Your task to perform on an android device: stop showing notifications on the lock screen Image 0: 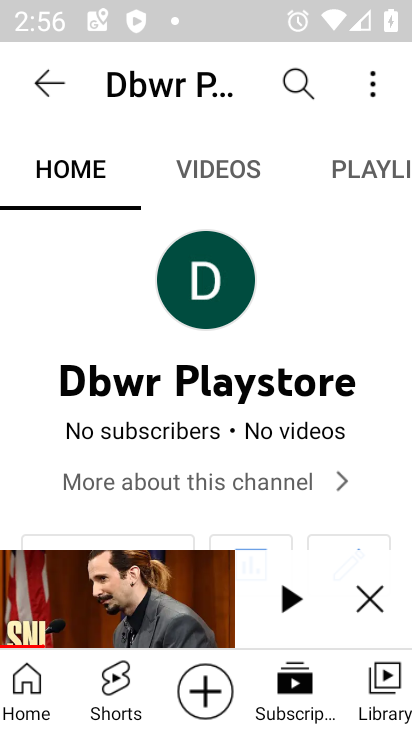
Step 0: press home button
Your task to perform on an android device: stop showing notifications on the lock screen Image 1: 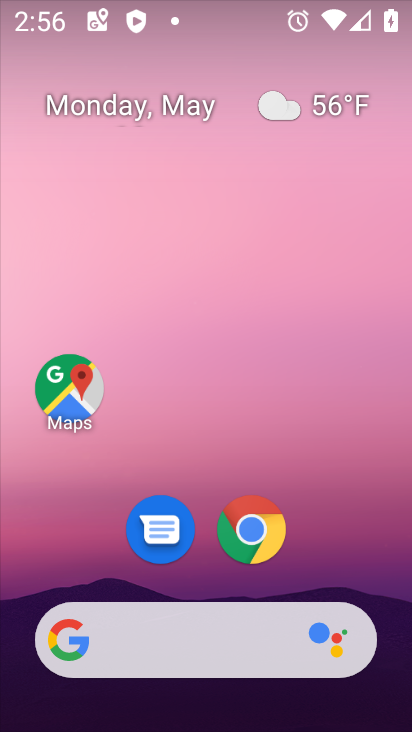
Step 1: drag from (349, 596) to (313, 2)
Your task to perform on an android device: stop showing notifications on the lock screen Image 2: 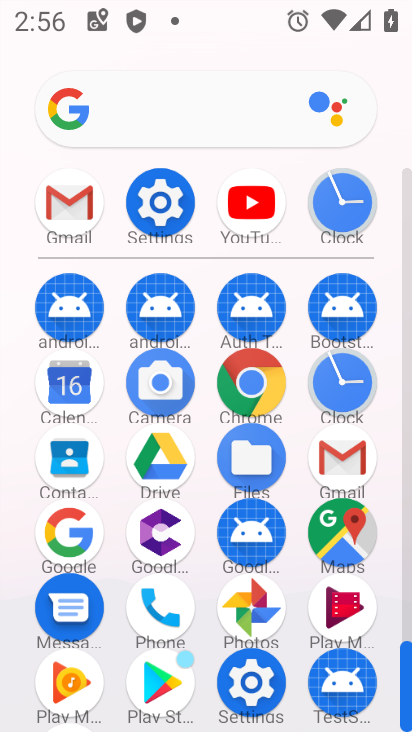
Step 2: click (149, 212)
Your task to perform on an android device: stop showing notifications on the lock screen Image 3: 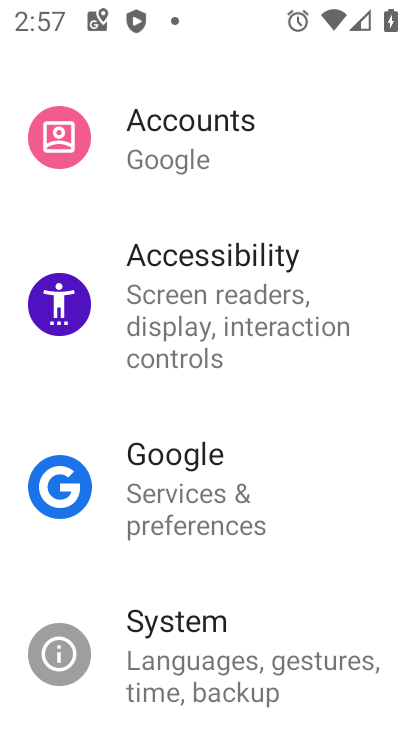
Step 3: drag from (184, 372) to (244, 583)
Your task to perform on an android device: stop showing notifications on the lock screen Image 4: 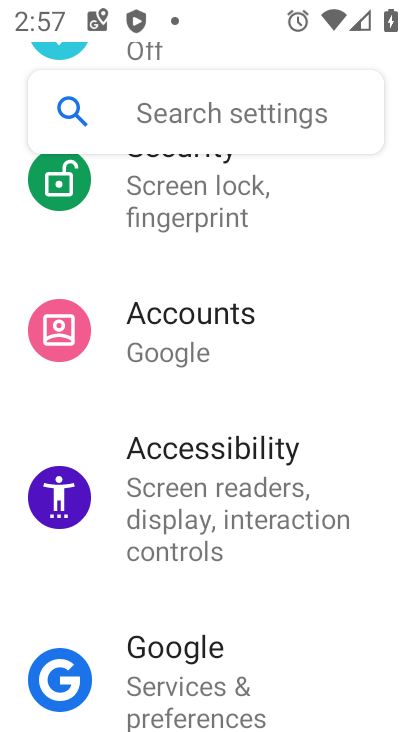
Step 4: drag from (298, 371) to (346, 577)
Your task to perform on an android device: stop showing notifications on the lock screen Image 5: 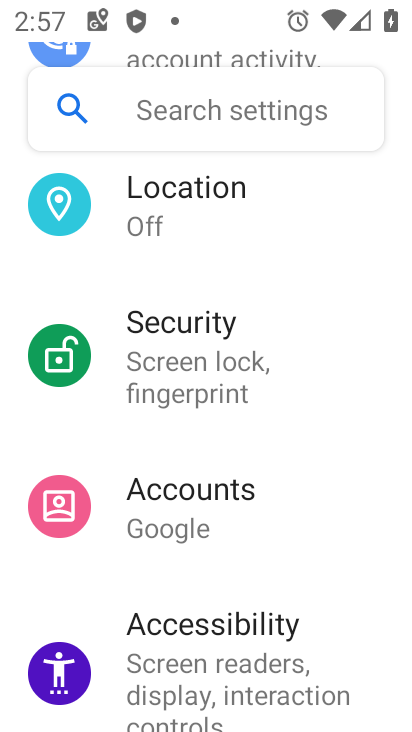
Step 5: drag from (253, 361) to (278, 572)
Your task to perform on an android device: stop showing notifications on the lock screen Image 6: 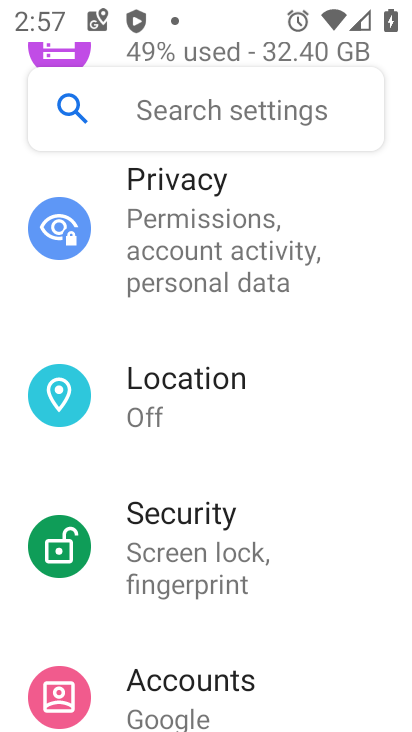
Step 6: drag from (179, 310) to (226, 588)
Your task to perform on an android device: stop showing notifications on the lock screen Image 7: 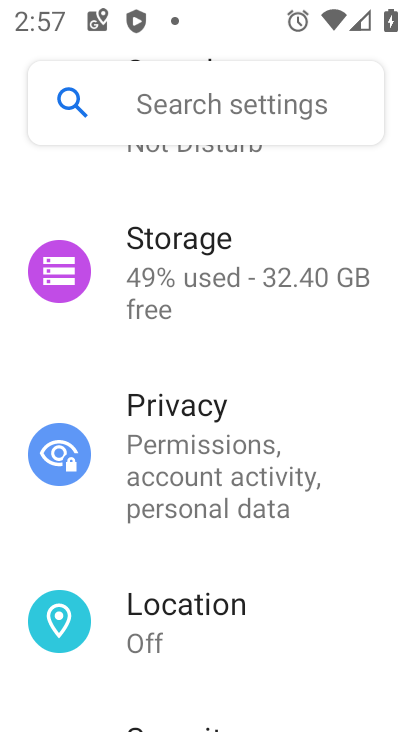
Step 7: drag from (224, 339) to (270, 566)
Your task to perform on an android device: stop showing notifications on the lock screen Image 8: 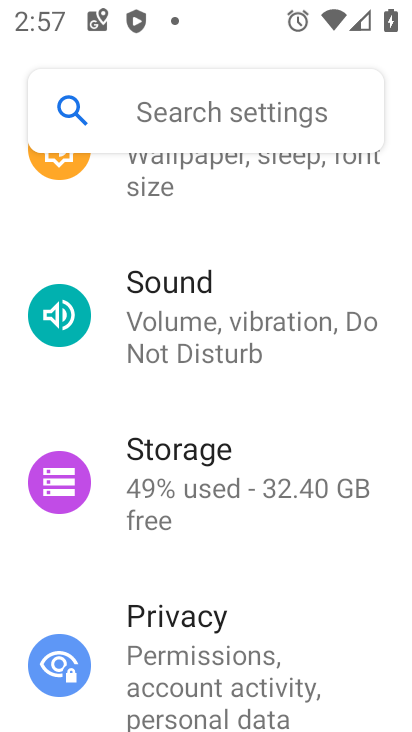
Step 8: drag from (196, 368) to (251, 650)
Your task to perform on an android device: stop showing notifications on the lock screen Image 9: 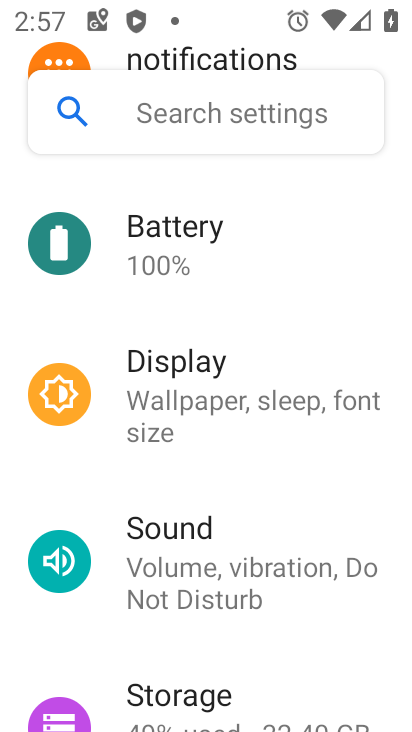
Step 9: drag from (248, 409) to (300, 558)
Your task to perform on an android device: stop showing notifications on the lock screen Image 10: 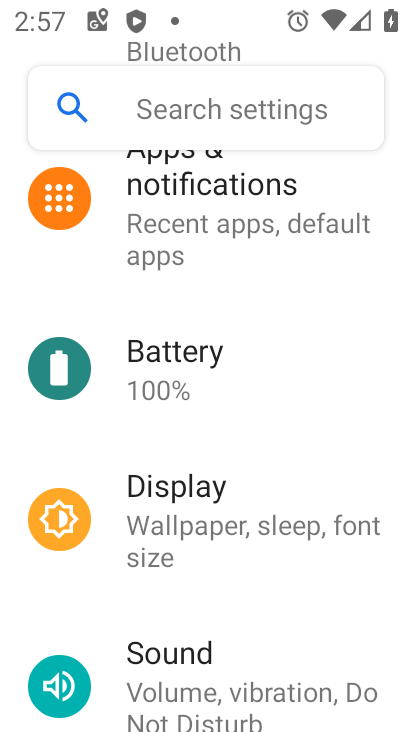
Step 10: click (187, 226)
Your task to perform on an android device: stop showing notifications on the lock screen Image 11: 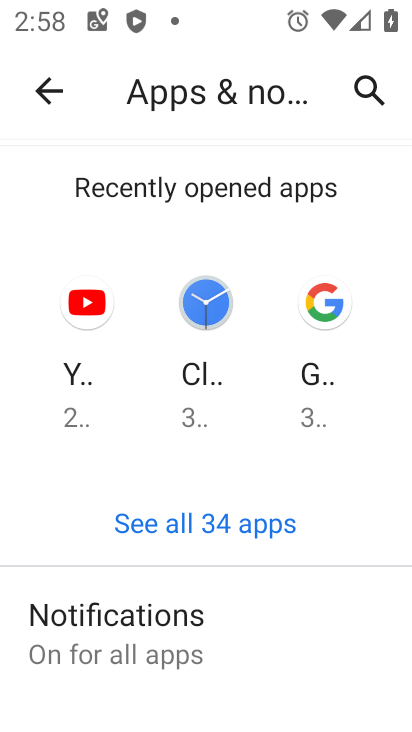
Step 11: click (182, 652)
Your task to perform on an android device: stop showing notifications on the lock screen Image 12: 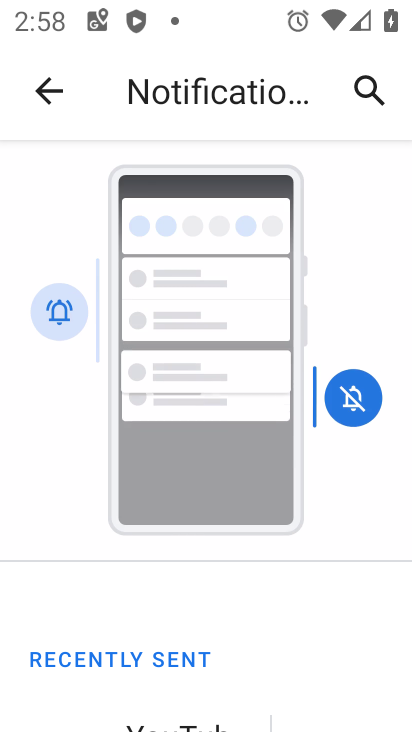
Step 12: drag from (163, 702) to (224, 262)
Your task to perform on an android device: stop showing notifications on the lock screen Image 13: 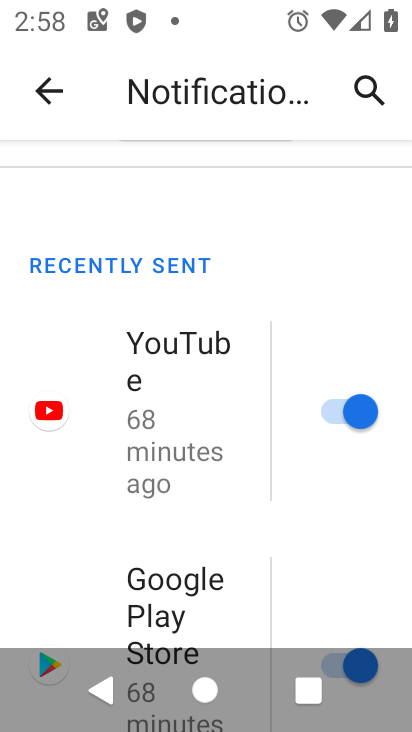
Step 13: drag from (213, 592) to (257, 257)
Your task to perform on an android device: stop showing notifications on the lock screen Image 14: 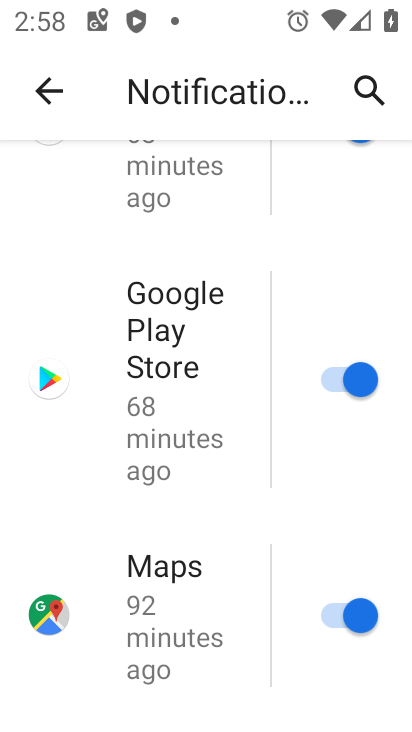
Step 14: drag from (134, 579) to (221, 137)
Your task to perform on an android device: stop showing notifications on the lock screen Image 15: 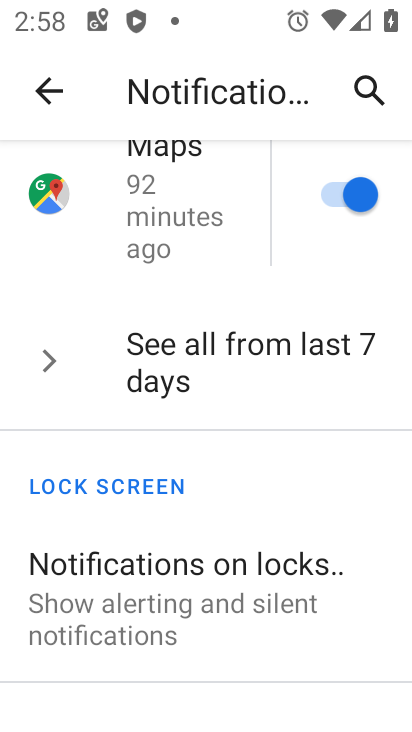
Step 15: drag from (147, 601) to (178, 465)
Your task to perform on an android device: stop showing notifications on the lock screen Image 16: 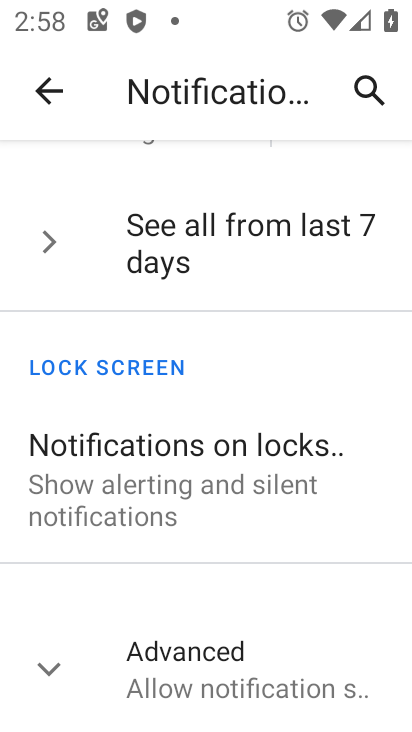
Step 16: click (94, 475)
Your task to perform on an android device: stop showing notifications on the lock screen Image 17: 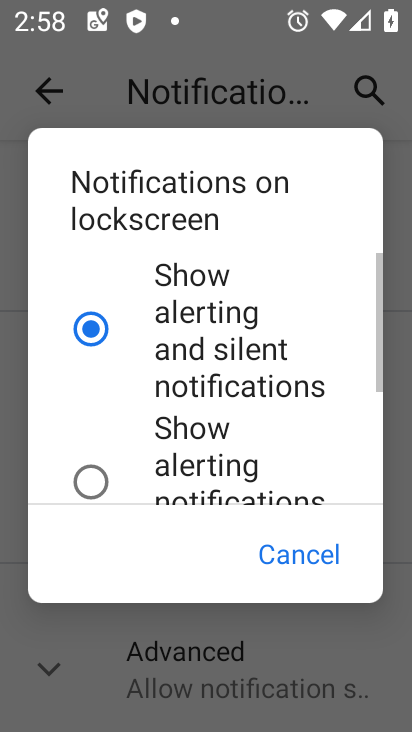
Step 17: drag from (193, 478) to (234, 246)
Your task to perform on an android device: stop showing notifications on the lock screen Image 18: 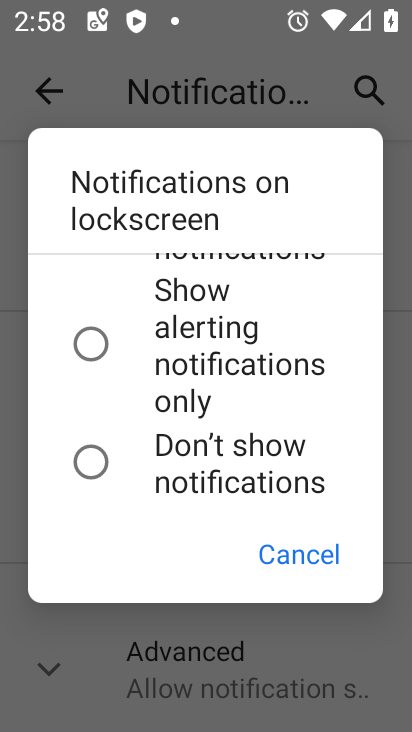
Step 18: click (177, 476)
Your task to perform on an android device: stop showing notifications on the lock screen Image 19: 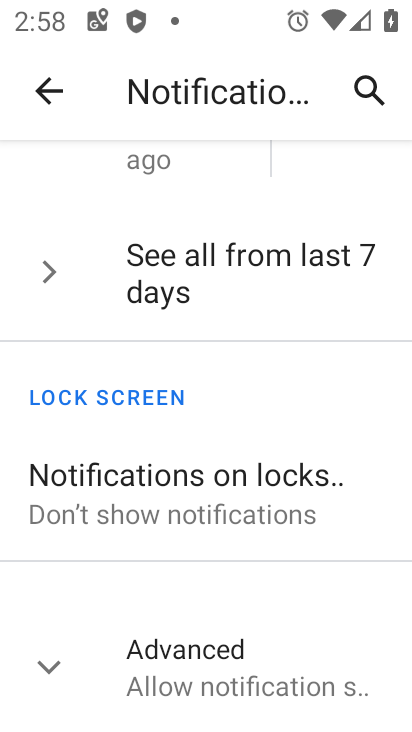
Step 19: task complete